Your task to perform on an android device: check battery use Image 0: 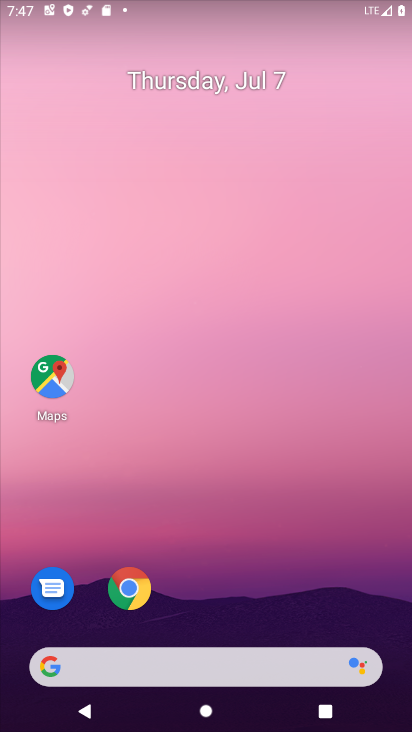
Step 0: drag from (278, 376) to (278, 210)
Your task to perform on an android device: check battery use Image 1: 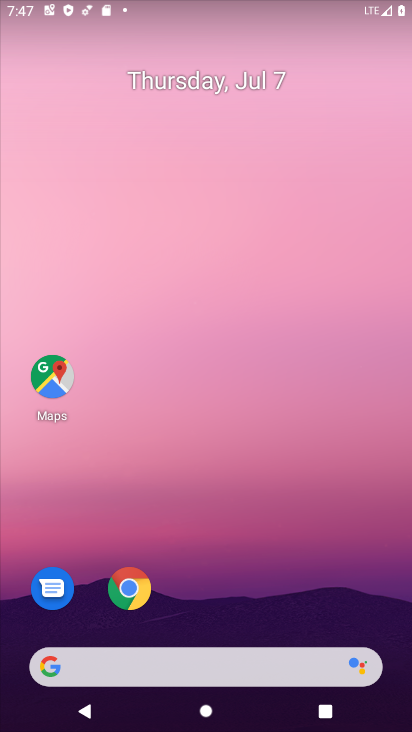
Step 1: drag from (278, 608) to (283, 236)
Your task to perform on an android device: check battery use Image 2: 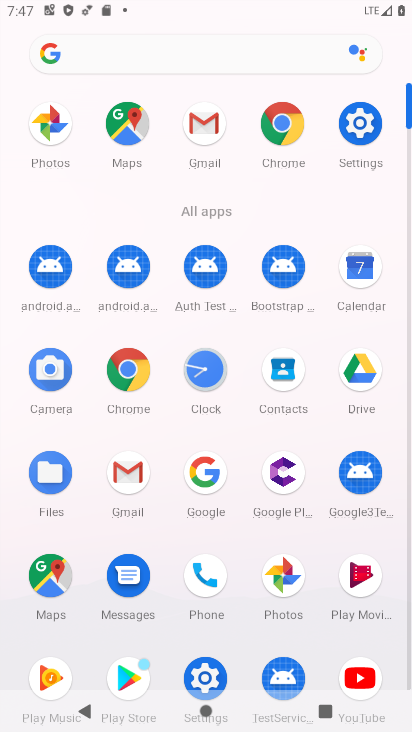
Step 2: click (355, 118)
Your task to perform on an android device: check battery use Image 3: 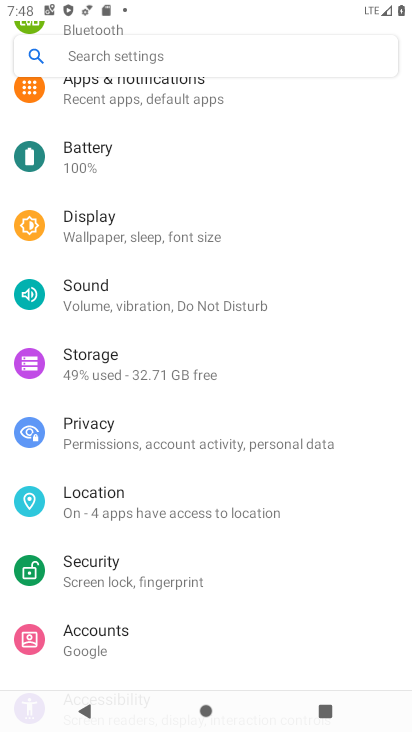
Step 3: click (95, 153)
Your task to perform on an android device: check battery use Image 4: 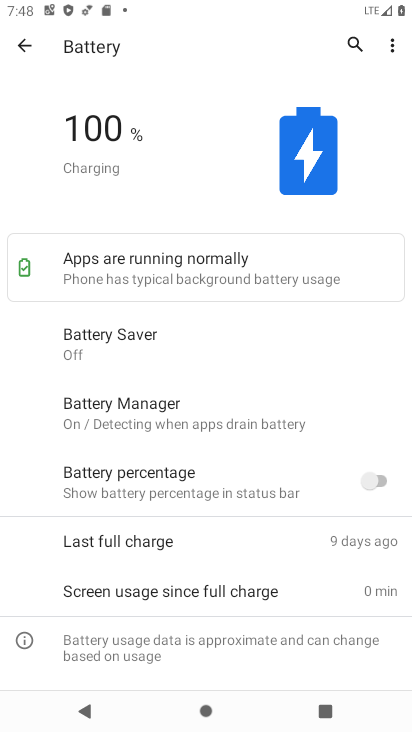
Step 4: task complete